Your task to perform on an android device: Do I have any events this weekend? Image 0: 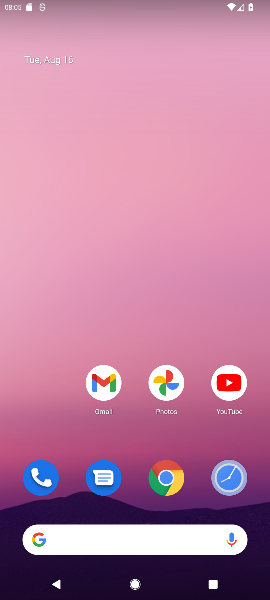
Step 0: drag from (127, 454) to (30, 6)
Your task to perform on an android device: Do I have any events this weekend? Image 1: 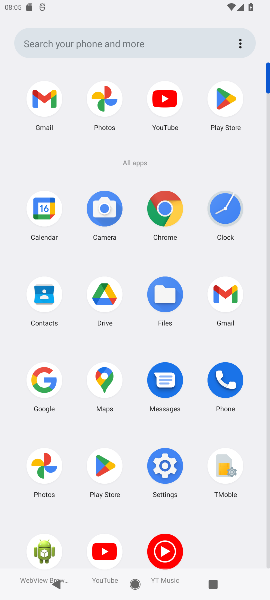
Step 1: click (34, 201)
Your task to perform on an android device: Do I have any events this weekend? Image 2: 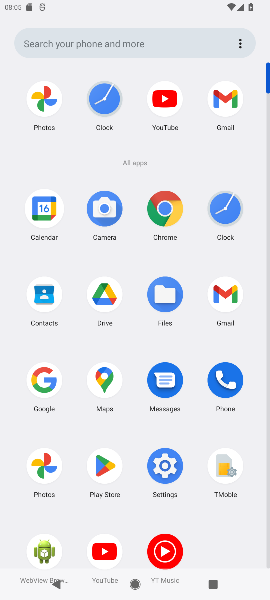
Step 2: click (45, 207)
Your task to perform on an android device: Do I have any events this weekend? Image 3: 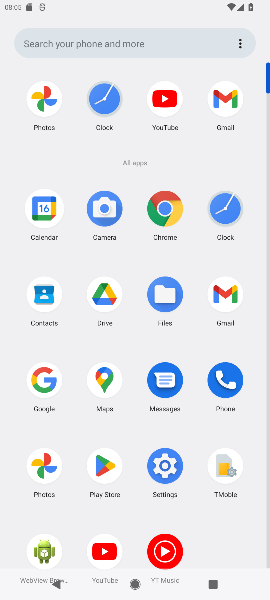
Step 3: click (45, 208)
Your task to perform on an android device: Do I have any events this weekend? Image 4: 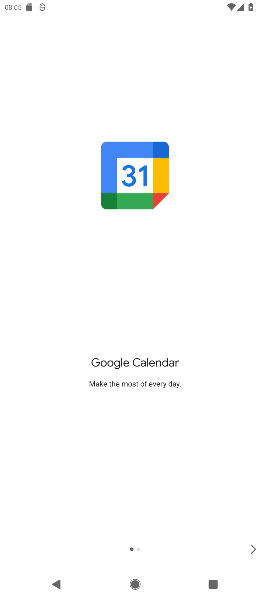
Step 4: click (247, 545)
Your task to perform on an android device: Do I have any events this weekend? Image 5: 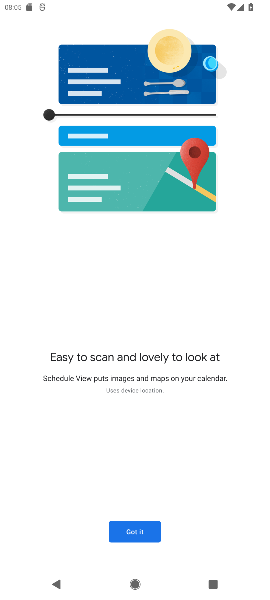
Step 5: click (127, 528)
Your task to perform on an android device: Do I have any events this weekend? Image 6: 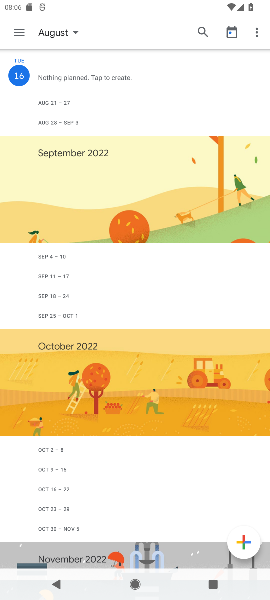
Step 6: click (14, 29)
Your task to perform on an android device: Do I have any events this weekend? Image 7: 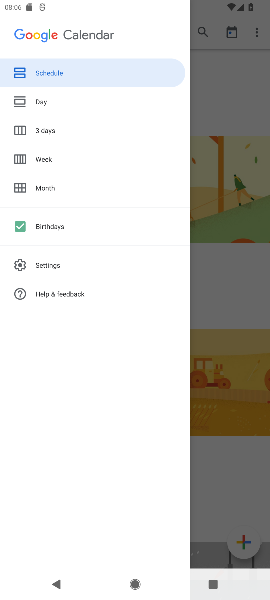
Step 7: click (28, 157)
Your task to perform on an android device: Do I have any events this weekend? Image 8: 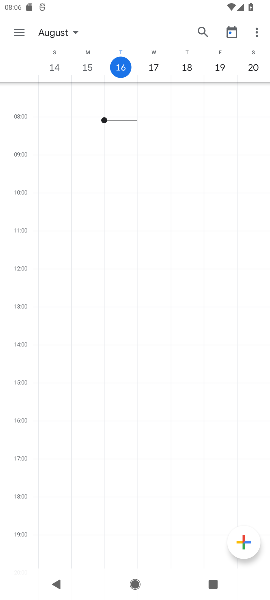
Step 8: task complete